Your task to perform on an android device: create a new album in the google photos Image 0: 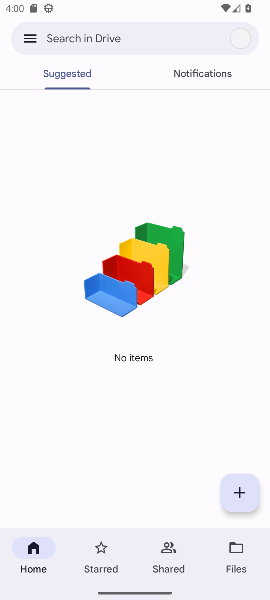
Step 0: click (260, 288)
Your task to perform on an android device: create a new album in the google photos Image 1: 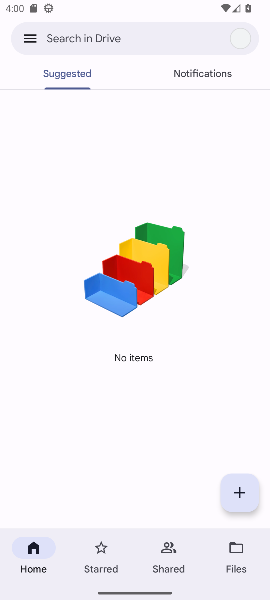
Step 1: press back button
Your task to perform on an android device: create a new album in the google photos Image 2: 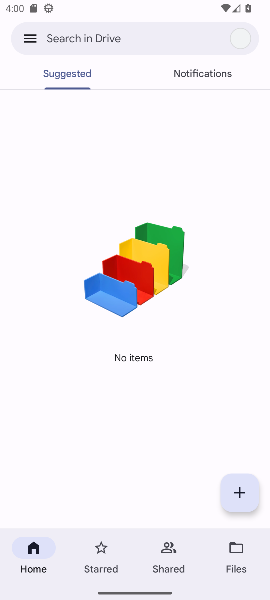
Step 2: press home button
Your task to perform on an android device: create a new album in the google photos Image 3: 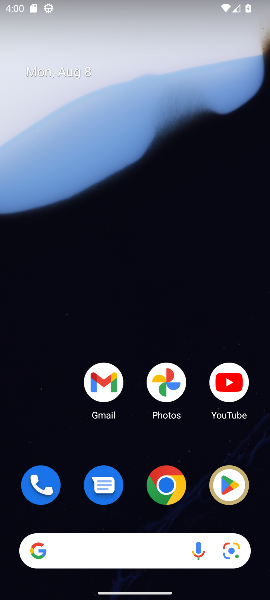
Step 3: drag from (120, 456) to (22, 123)
Your task to perform on an android device: create a new album in the google photos Image 4: 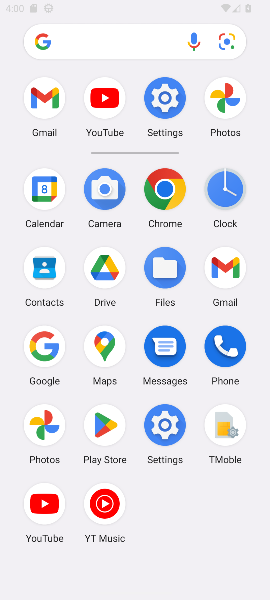
Step 4: drag from (133, 450) to (127, 133)
Your task to perform on an android device: create a new album in the google photos Image 5: 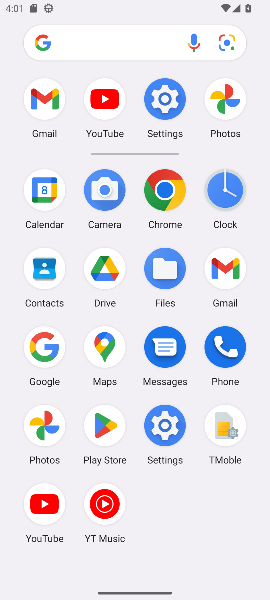
Step 5: click (45, 422)
Your task to perform on an android device: create a new album in the google photos Image 6: 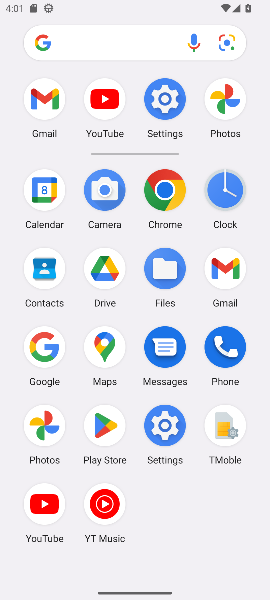
Step 6: click (45, 422)
Your task to perform on an android device: create a new album in the google photos Image 7: 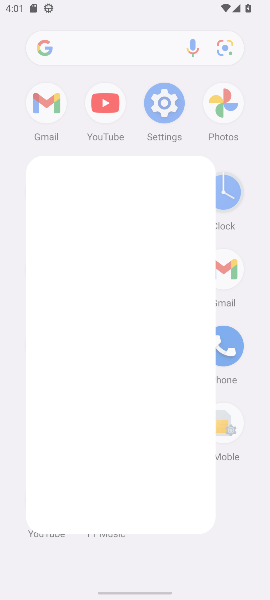
Step 7: click (44, 430)
Your task to perform on an android device: create a new album in the google photos Image 8: 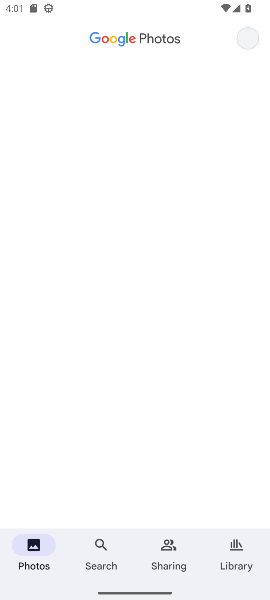
Step 8: click (44, 430)
Your task to perform on an android device: create a new album in the google photos Image 9: 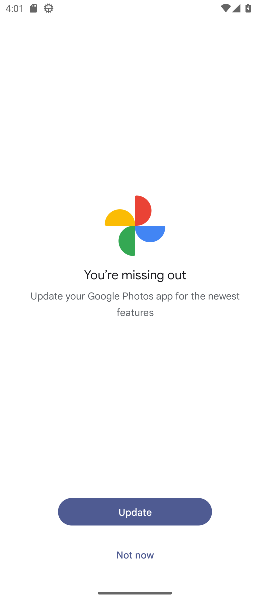
Step 9: click (142, 545)
Your task to perform on an android device: create a new album in the google photos Image 10: 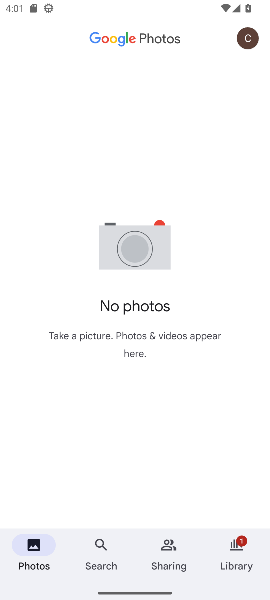
Step 10: click (252, 39)
Your task to perform on an android device: create a new album in the google photos Image 11: 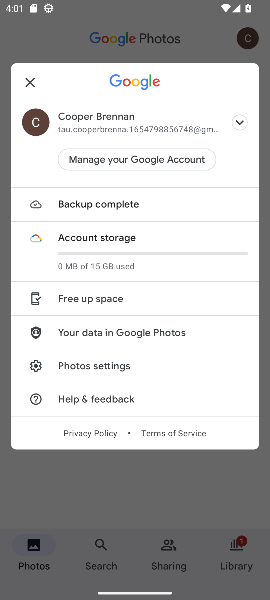
Step 11: click (91, 362)
Your task to perform on an android device: create a new album in the google photos Image 12: 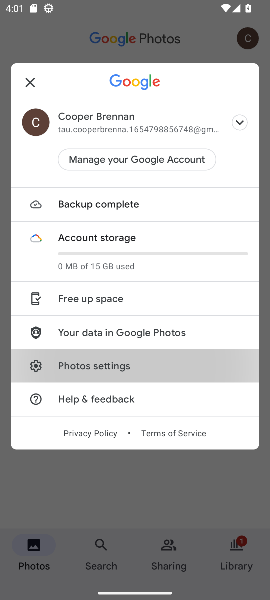
Step 12: click (91, 362)
Your task to perform on an android device: create a new album in the google photos Image 13: 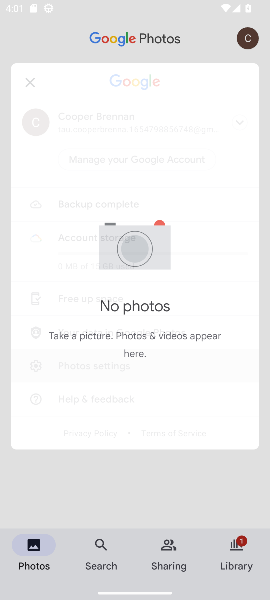
Step 13: click (91, 362)
Your task to perform on an android device: create a new album in the google photos Image 14: 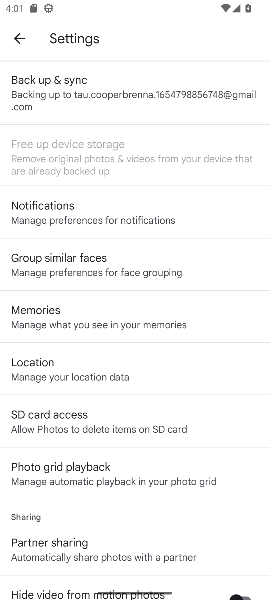
Step 14: click (19, 33)
Your task to perform on an android device: create a new album in the google photos Image 15: 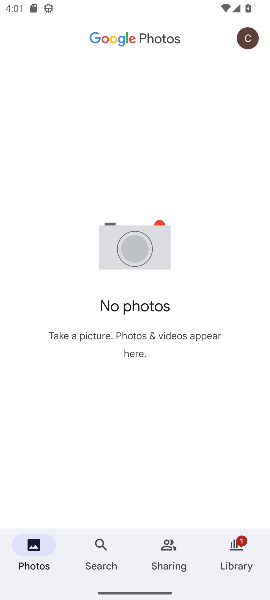
Step 15: click (253, 38)
Your task to perform on an android device: create a new album in the google photos Image 16: 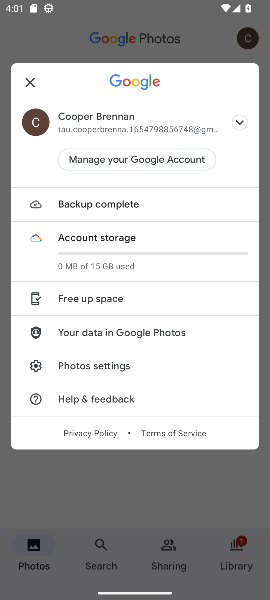
Step 16: click (93, 363)
Your task to perform on an android device: create a new album in the google photos Image 17: 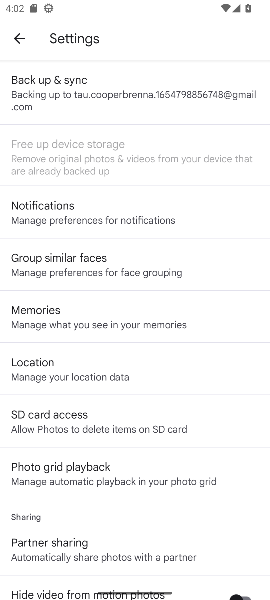
Step 17: task complete